Your task to perform on an android device: see sites visited before in the chrome app Image 0: 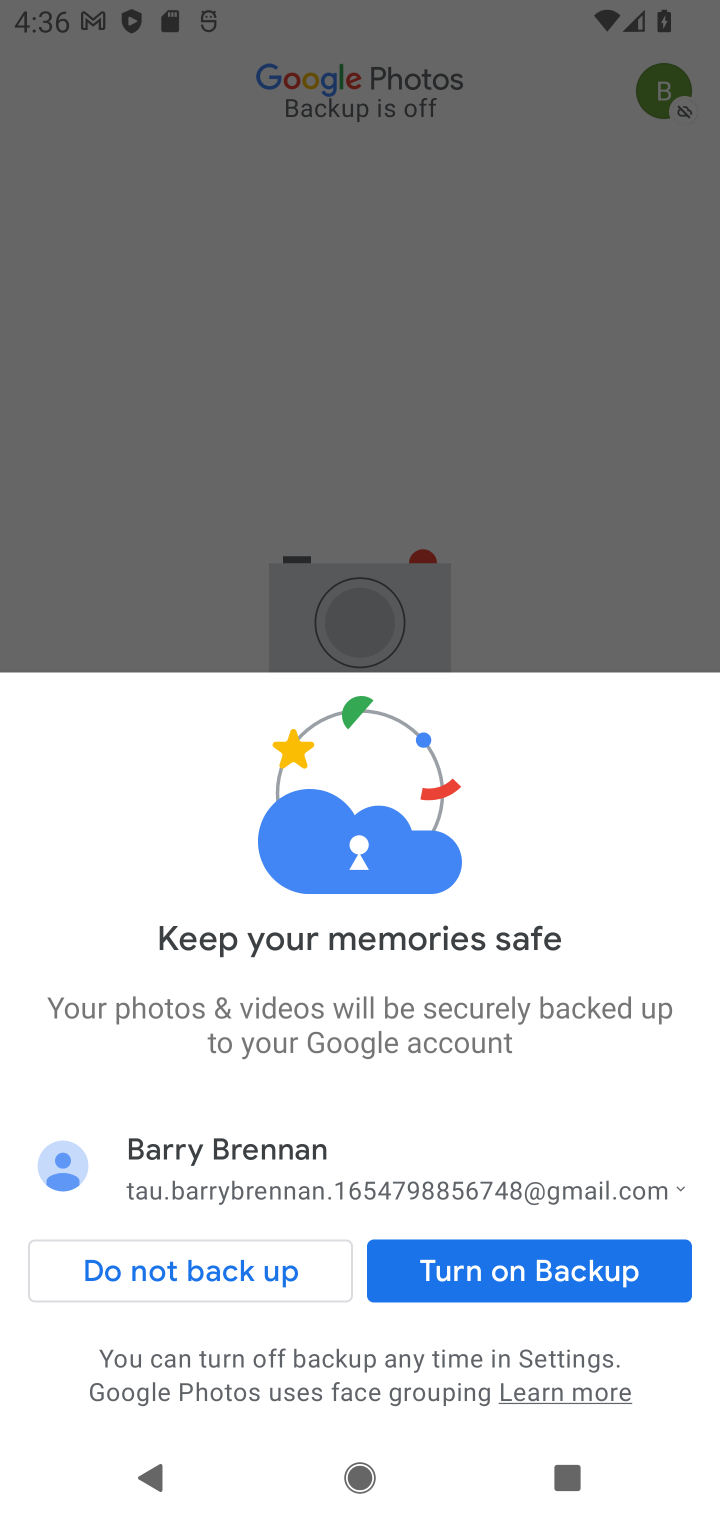
Step 0: press home button
Your task to perform on an android device: see sites visited before in the chrome app Image 1: 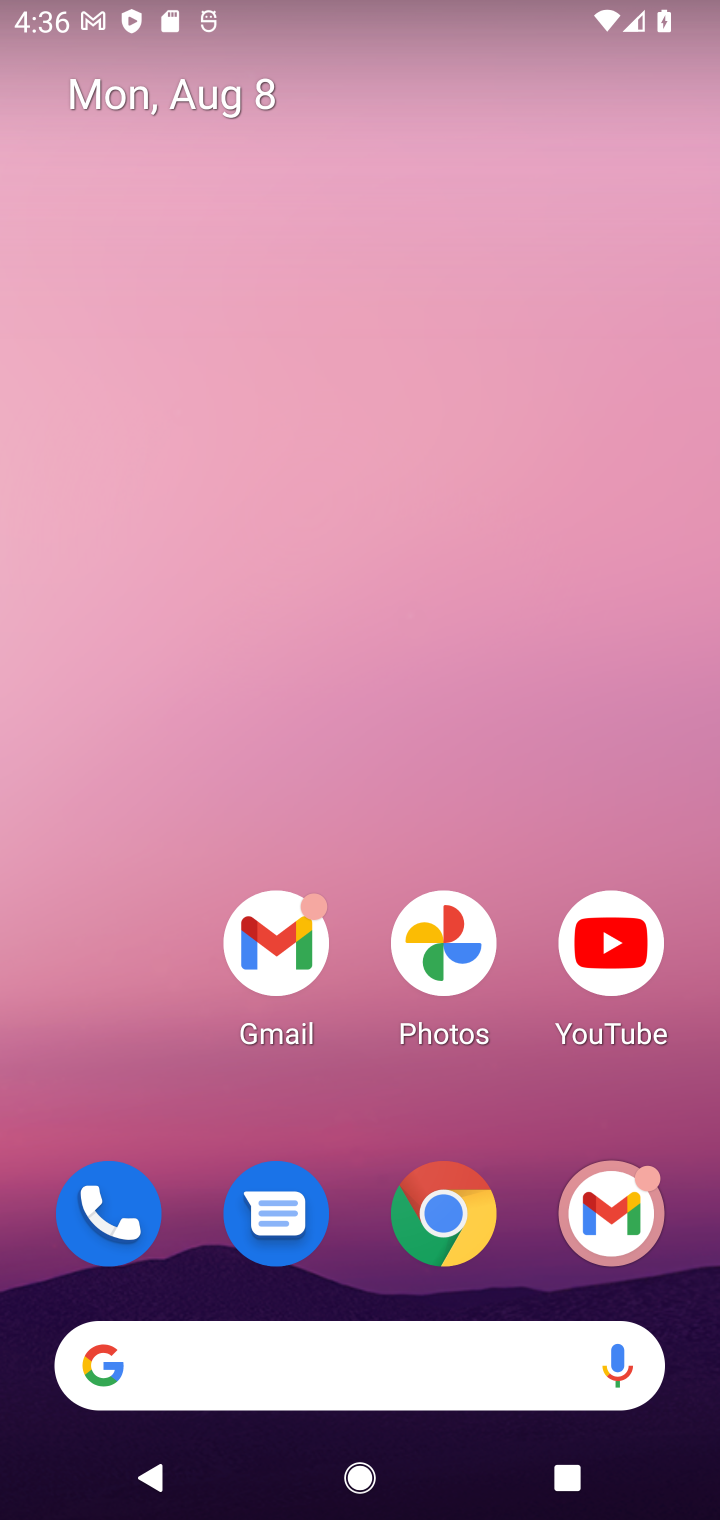
Step 1: click (453, 1207)
Your task to perform on an android device: see sites visited before in the chrome app Image 2: 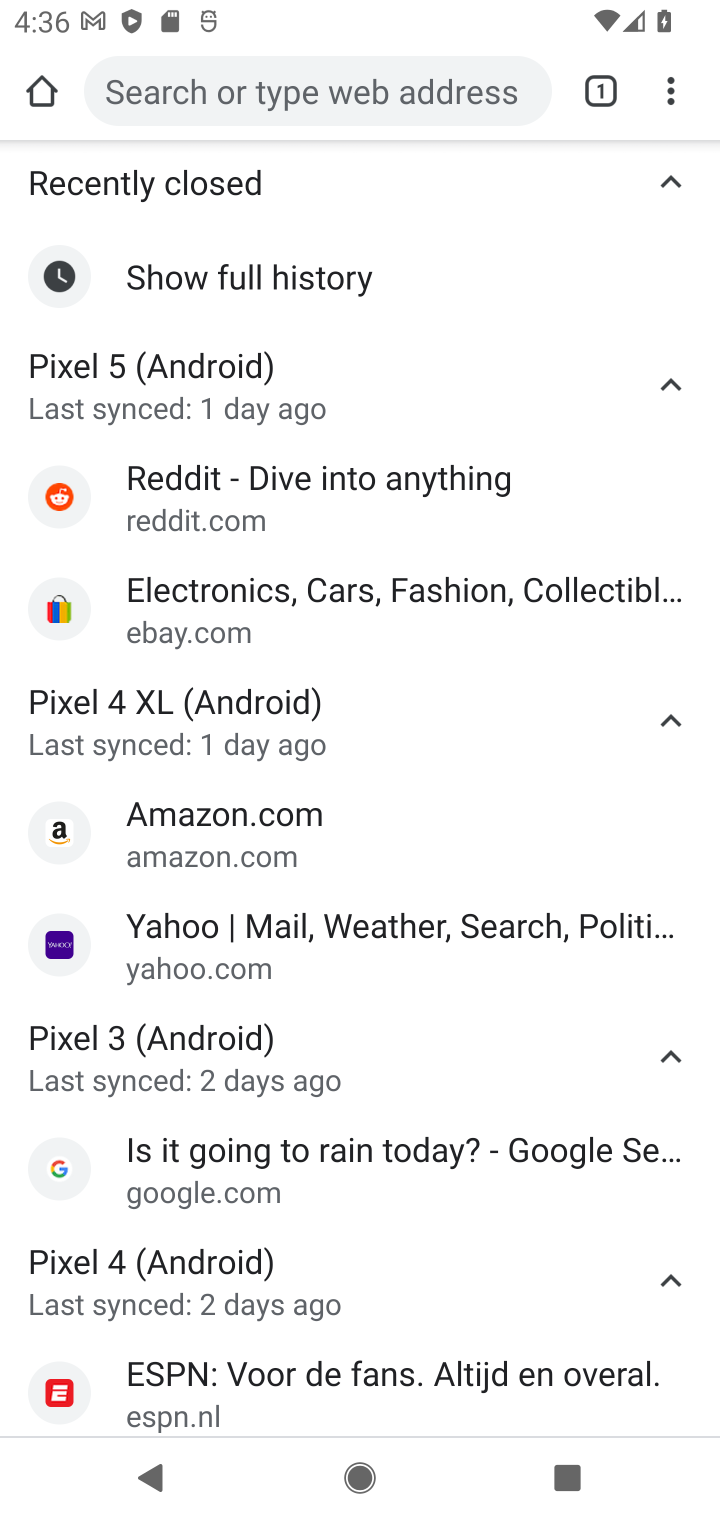
Step 2: click (668, 93)
Your task to perform on an android device: see sites visited before in the chrome app Image 3: 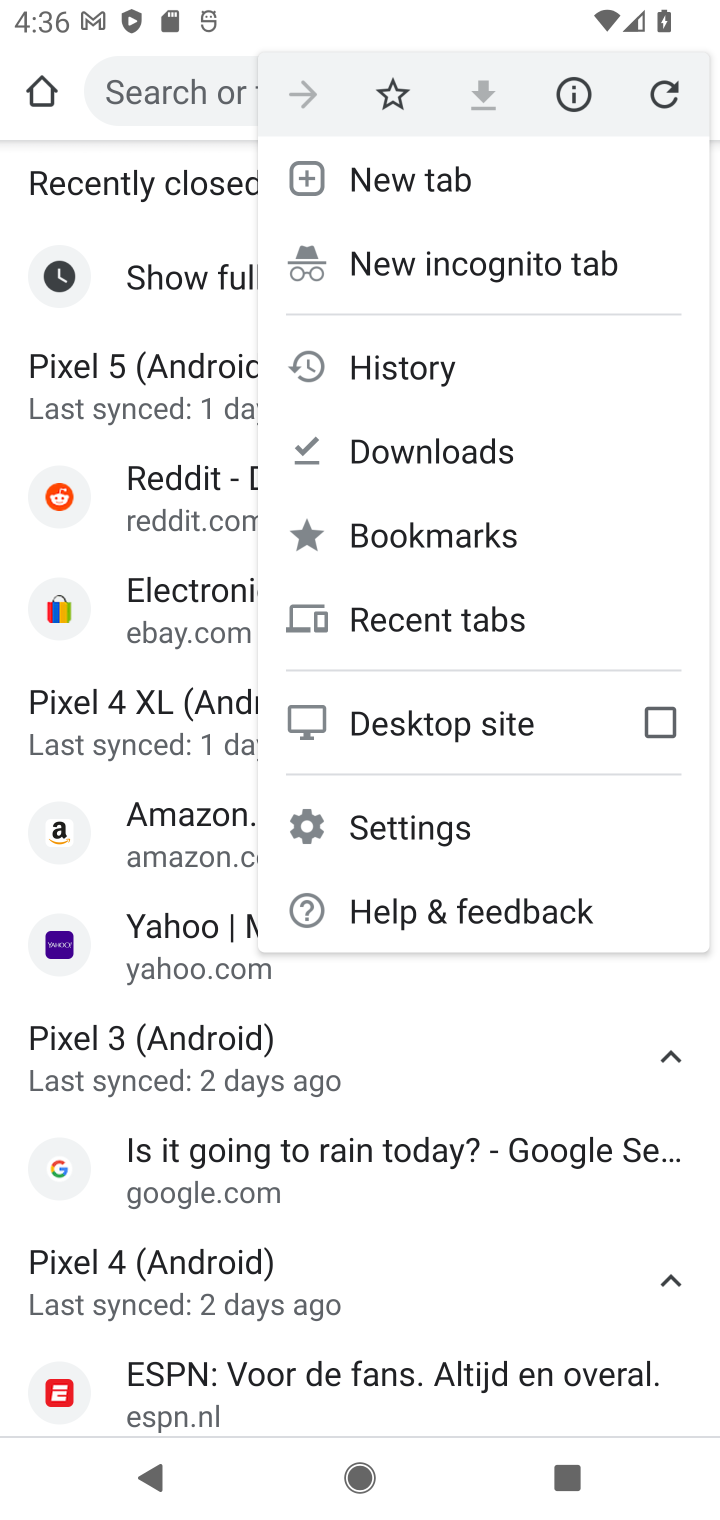
Step 3: click (407, 359)
Your task to perform on an android device: see sites visited before in the chrome app Image 4: 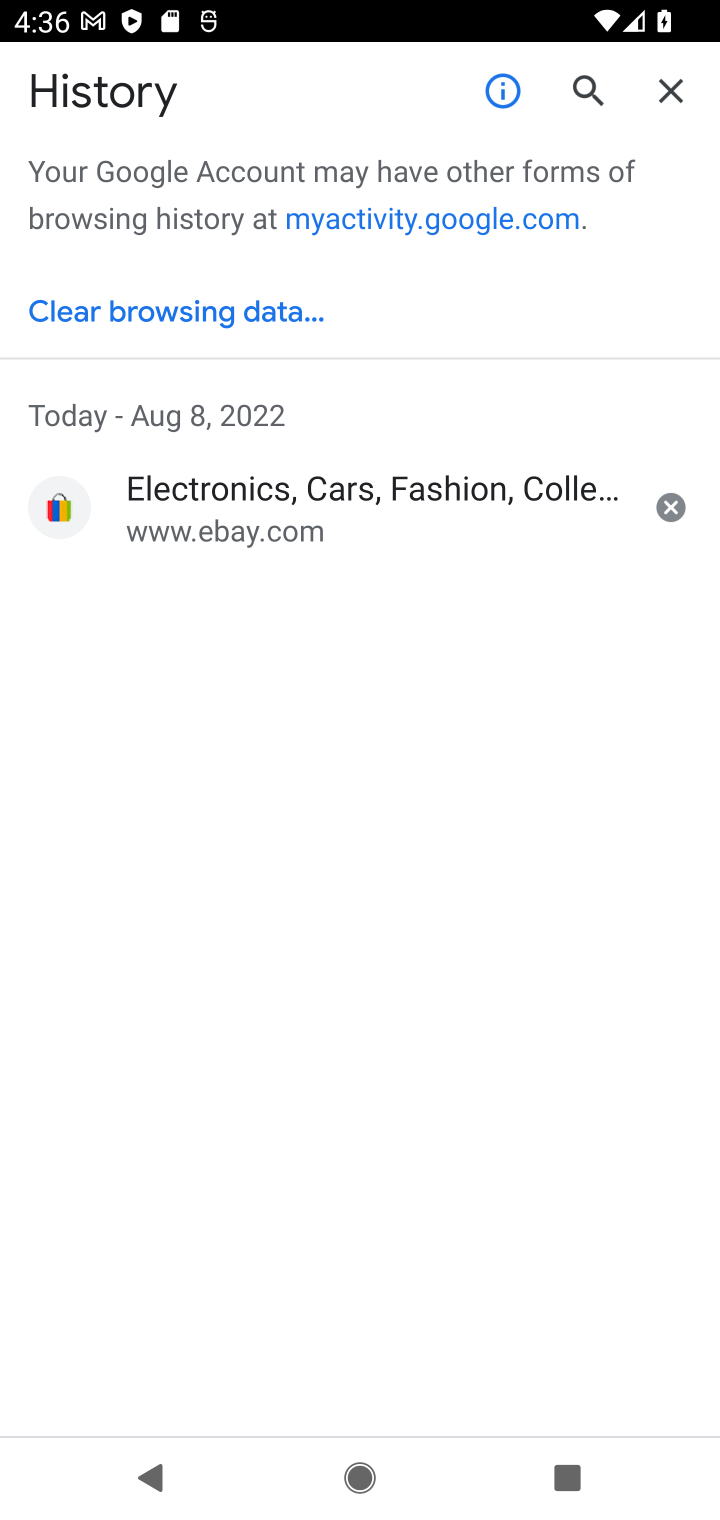
Step 4: task complete